Your task to perform on an android device: Open Google Maps Image 0: 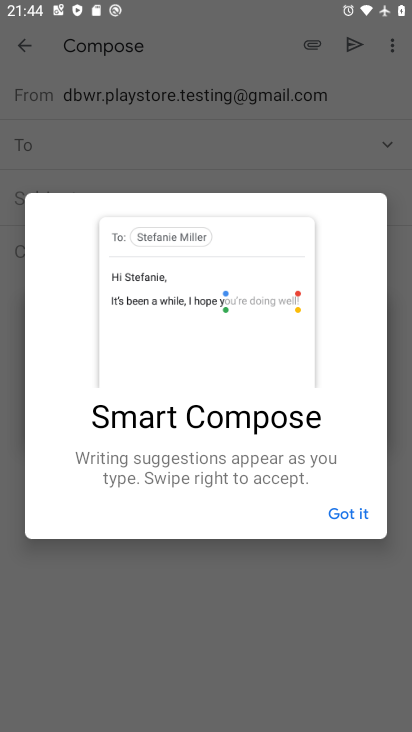
Step 0: press home button
Your task to perform on an android device: Open Google Maps Image 1: 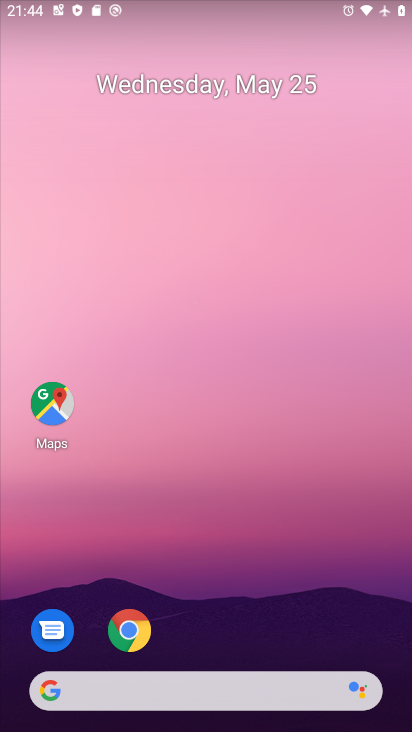
Step 1: click (44, 426)
Your task to perform on an android device: Open Google Maps Image 2: 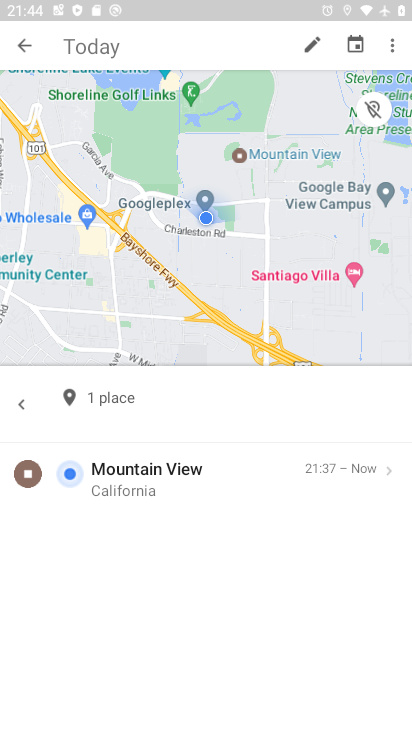
Step 2: task complete